Your task to perform on an android device: Search for seafood restaurants on Google Maps Image 0: 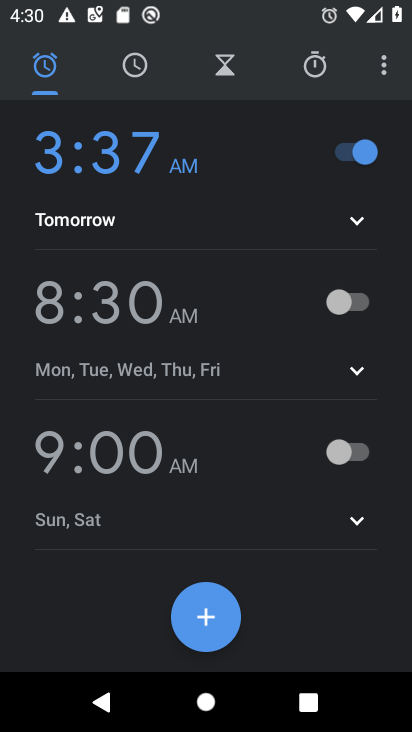
Step 0: press home button
Your task to perform on an android device: Search for seafood restaurants on Google Maps Image 1: 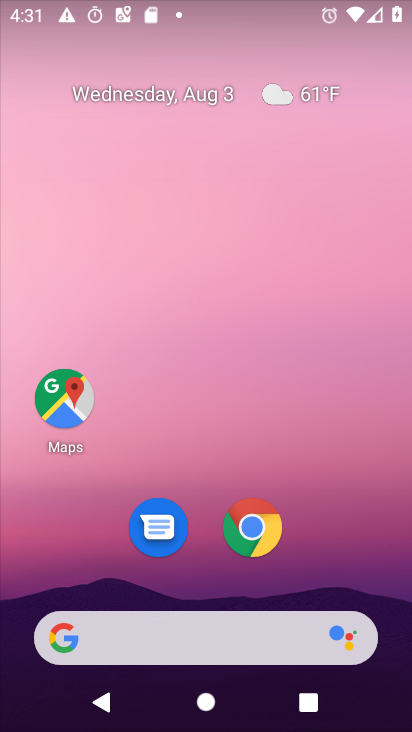
Step 1: drag from (369, 486) to (343, 2)
Your task to perform on an android device: Search for seafood restaurants on Google Maps Image 2: 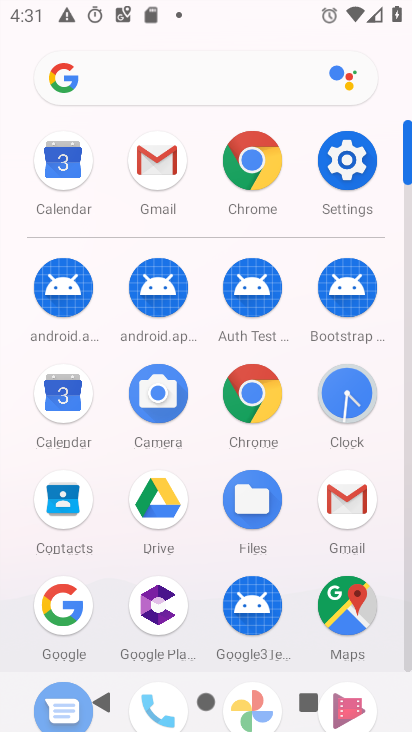
Step 2: click (345, 627)
Your task to perform on an android device: Search for seafood restaurants on Google Maps Image 3: 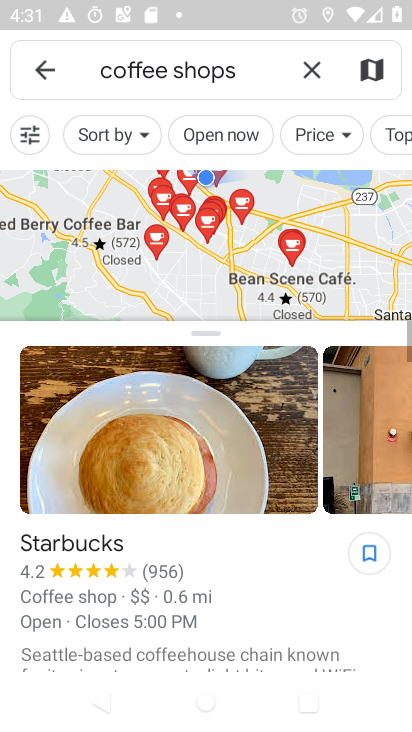
Step 3: click (256, 76)
Your task to perform on an android device: Search for seafood restaurants on Google Maps Image 4: 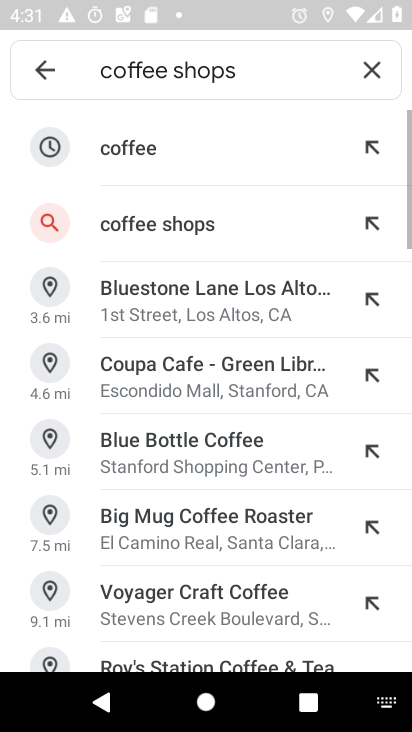
Step 4: click (369, 70)
Your task to perform on an android device: Search for seafood restaurants on Google Maps Image 5: 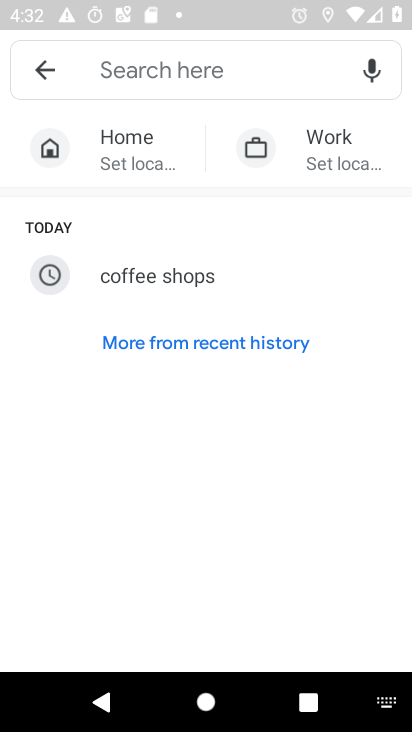
Step 5: type "Seafood restaurants"
Your task to perform on an android device: Search for seafood restaurants on Google Maps Image 6: 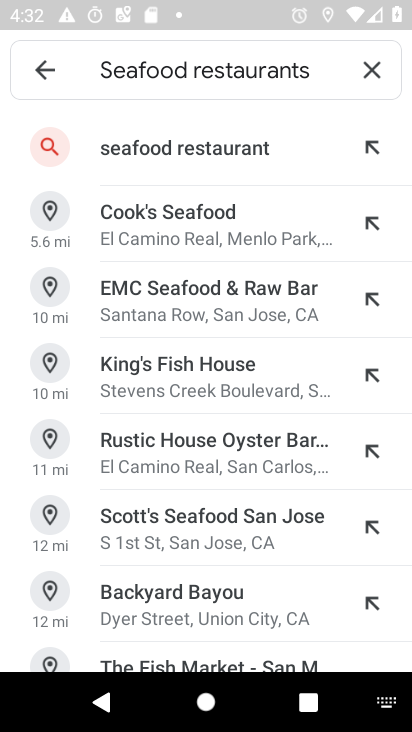
Step 6: press enter
Your task to perform on an android device: Search for seafood restaurants on Google Maps Image 7: 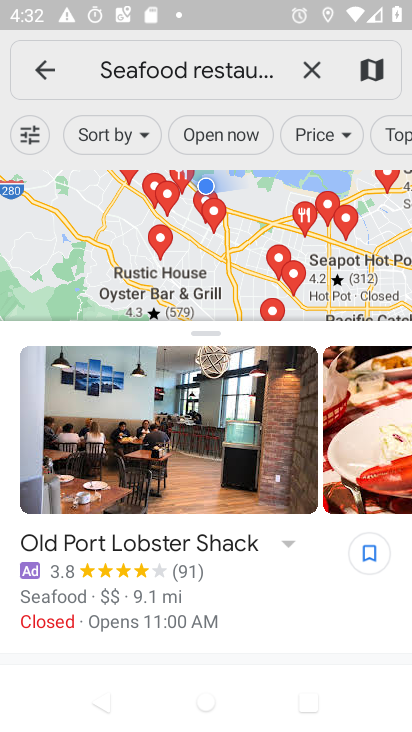
Step 7: task complete